Your task to perform on an android device: Is it going to rain today? Image 0: 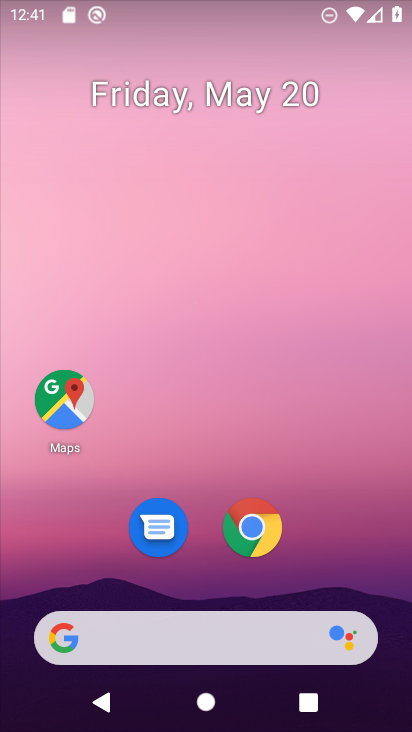
Step 0: drag from (0, 242) to (343, 246)
Your task to perform on an android device: Is it going to rain today? Image 1: 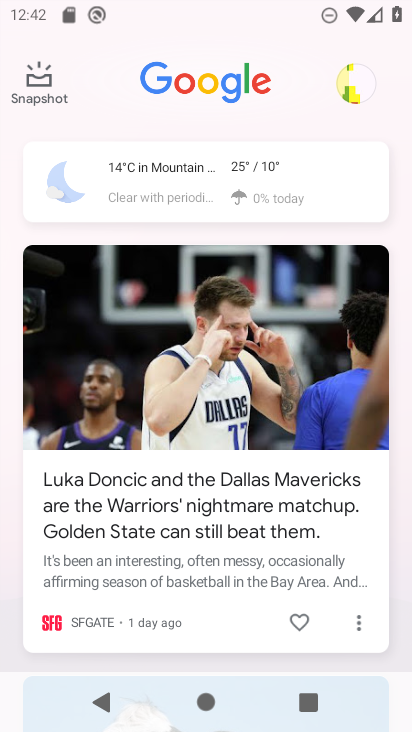
Step 1: click (201, 162)
Your task to perform on an android device: Is it going to rain today? Image 2: 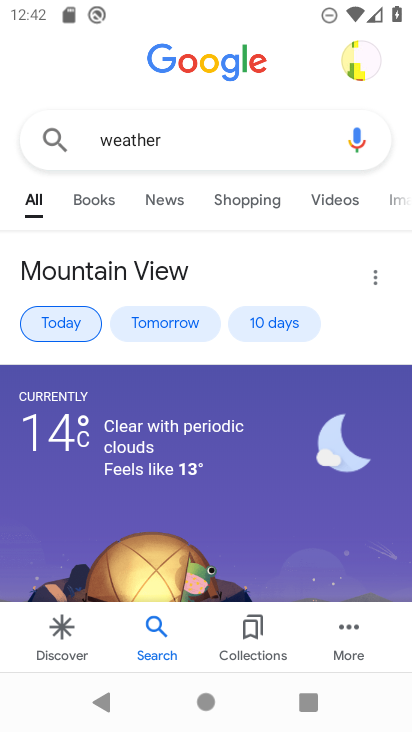
Step 2: click (67, 316)
Your task to perform on an android device: Is it going to rain today? Image 3: 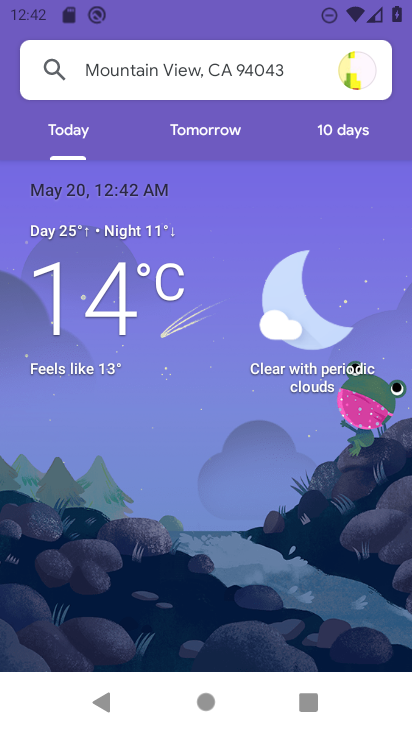
Step 3: task complete